Your task to perform on an android device: When is my next appointment? Image 0: 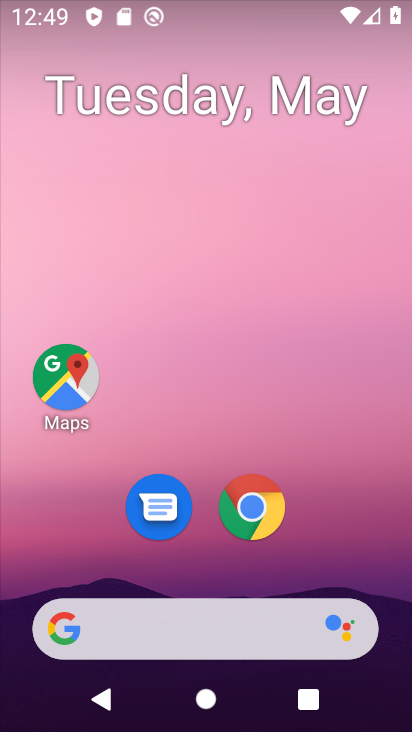
Step 0: drag from (340, 557) to (380, 166)
Your task to perform on an android device: When is my next appointment? Image 1: 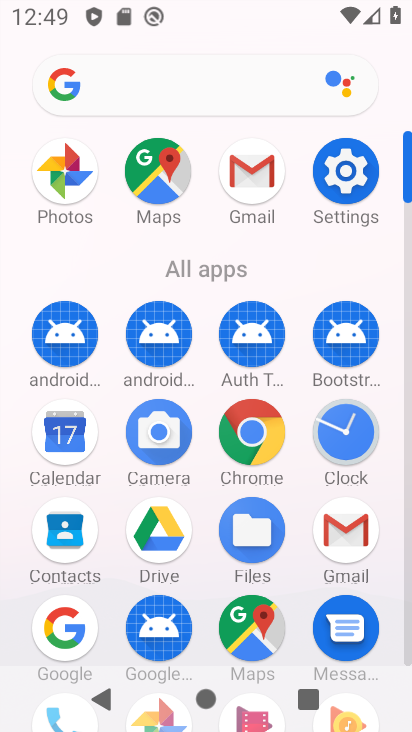
Step 1: click (73, 431)
Your task to perform on an android device: When is my next appointment? Image 2: 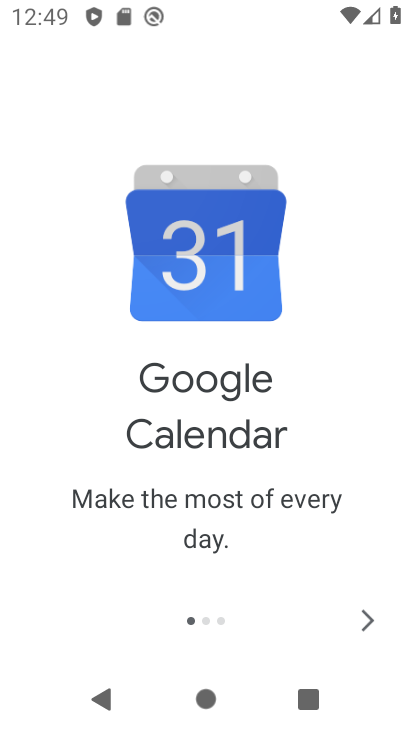
Step 2: click (357, 621)
Your task to perform on an android device: When is my next appointment? Image 3: 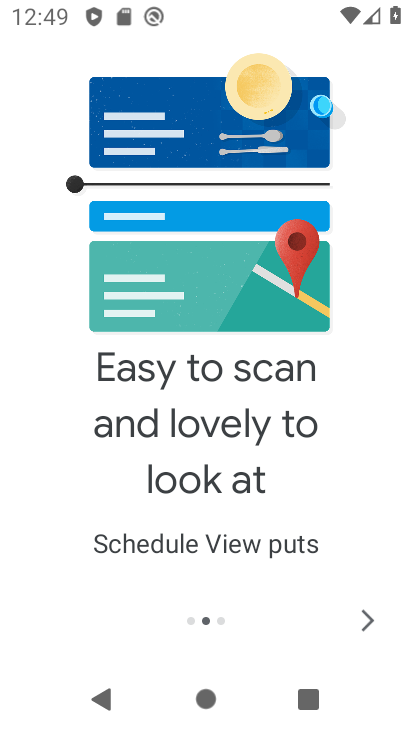
Step 3: click (353, 619)
Your task to perform on an android device: When is my next appointment? Image 4: 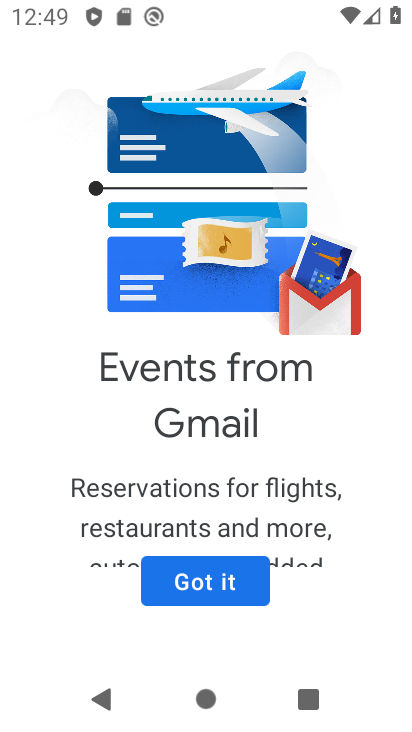
Step 4: click (232, 566)
Your task to perform on an android device: When is my next appointment? Image 5: 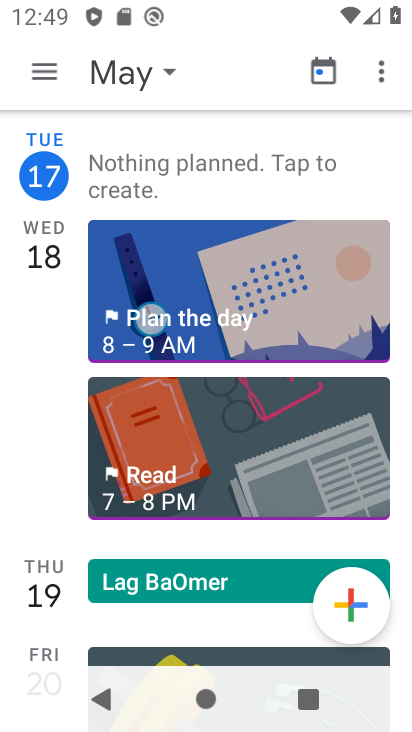
Step 5: click (128, 82)
Your task to perform on an android device: When is my next appointment? Image 6: 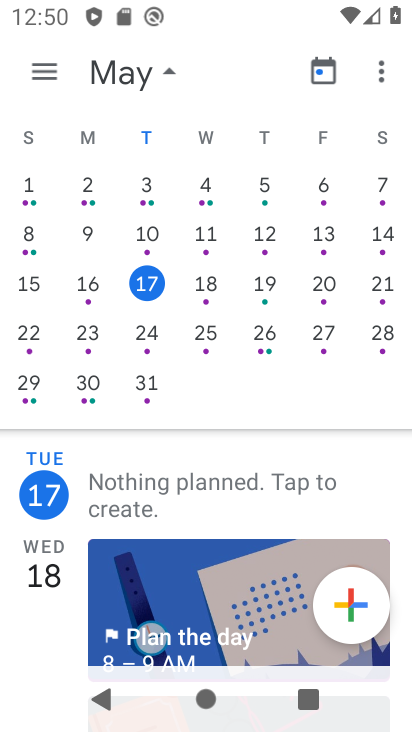
Step 6: task complete